Your task to perform on an android device: open wifi settings Image 0: 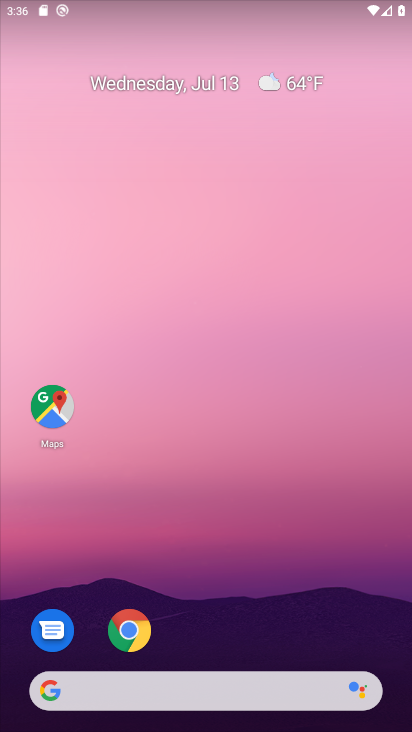
Step 0: drag from (167, 13) to (231, 532)
Your task to perform on an android device: open wifi settings Image 1: 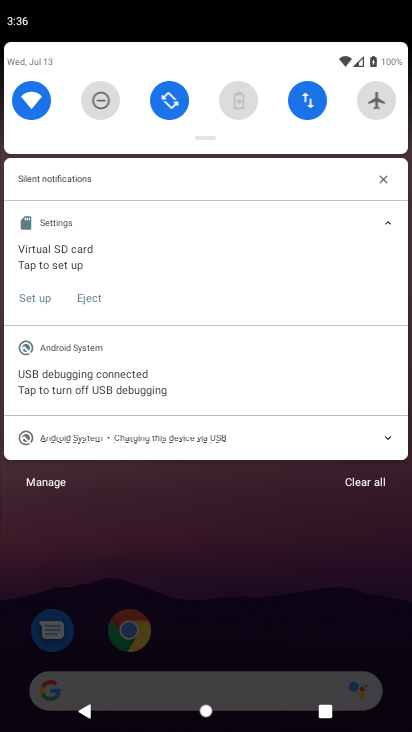
Step 1: click (33, 111)
Your task to perform on an android device: open wifi settings Image 2: 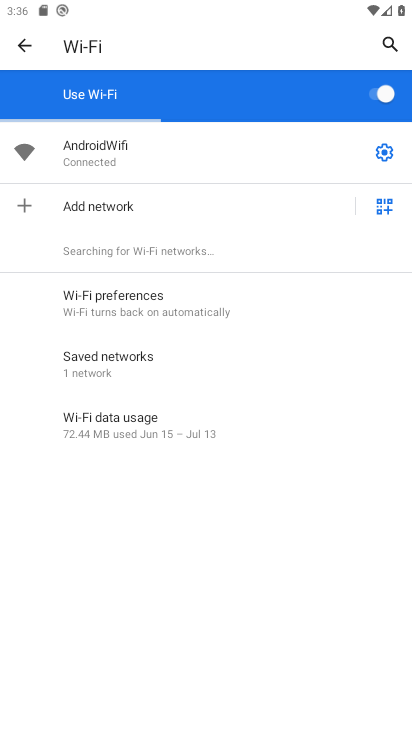
Step 2: task complete